Your task to perform on an android device: Search for sushi restaurants on Maps Image 0: 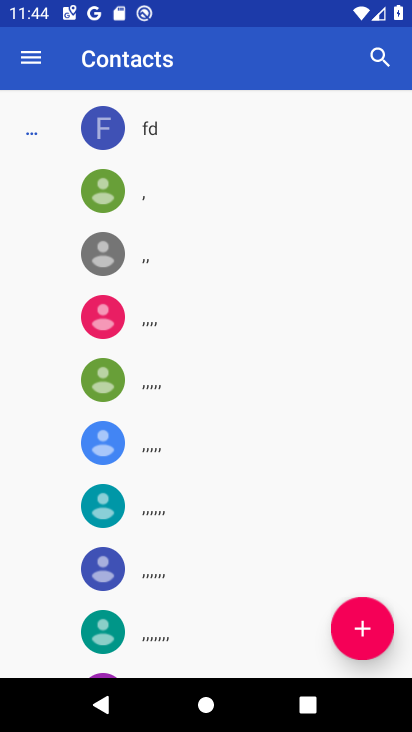
Step 0: press home button
Your task to perform on an android device: Search for sushi restaurants on Maps Image 1: 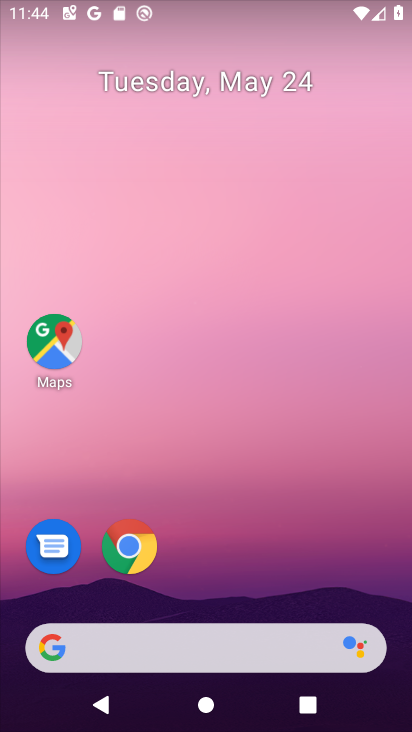
Step 1: click (59, 322)
Your task to perform on an android device: Search for sushi restaurants on Maps Image 2: 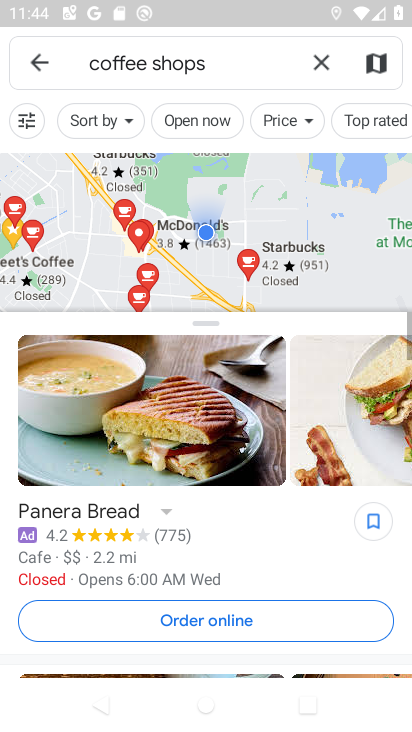
Step 2: click (320, 65)
Your task to perform on an android device: Search for sushi restaurants on Maps Image 3: 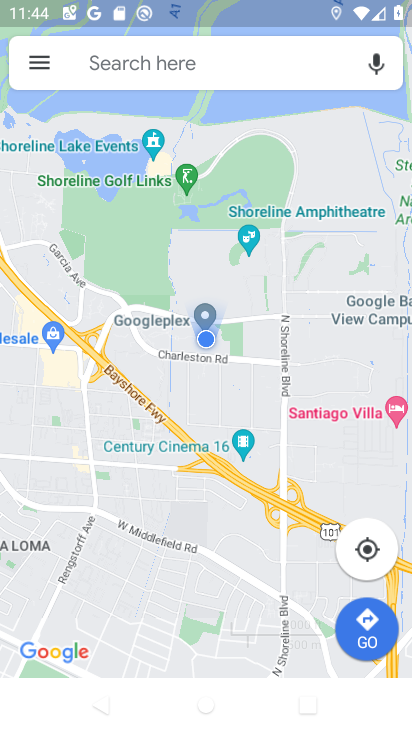
Step 3: click (159, 68)
Your task to perform on an android device: Search for sushi restaurants on Maps Image 4: 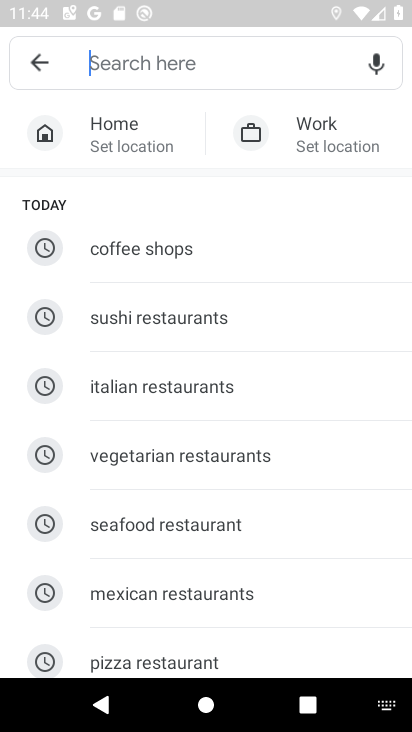
Step 4: type "sushi restaurants"
Your task to perform on an android device: Search for sushi restaurants on Maps Image 5: 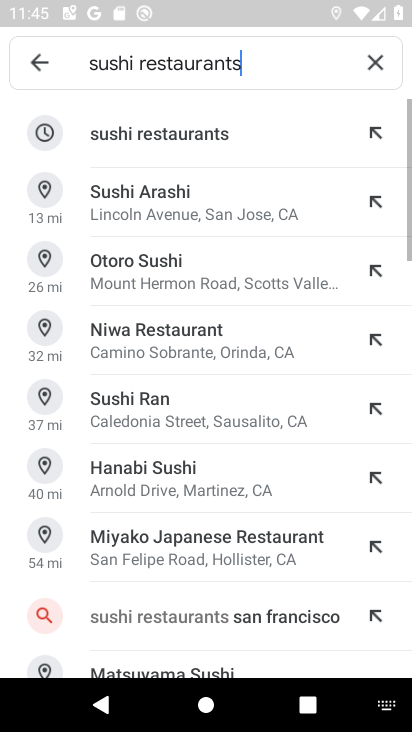
Step 5: click (204, 148)
Your task to perform on an android device: Search for sushi restaurants on Maps Image 6: 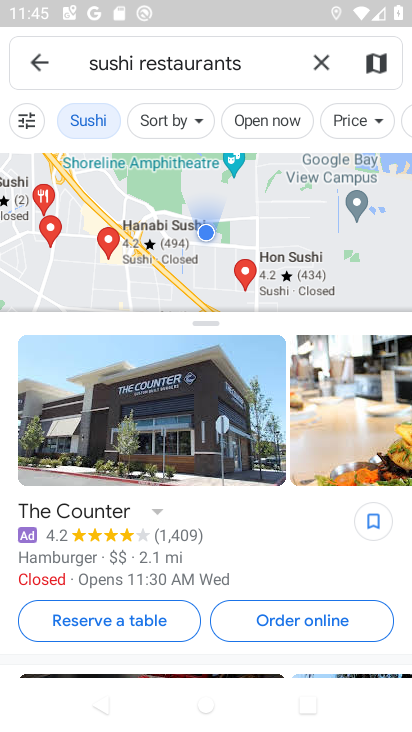
Step 6: task complete